Your task to perform on an android device: turn on the 24-hour format for clock Image 0: 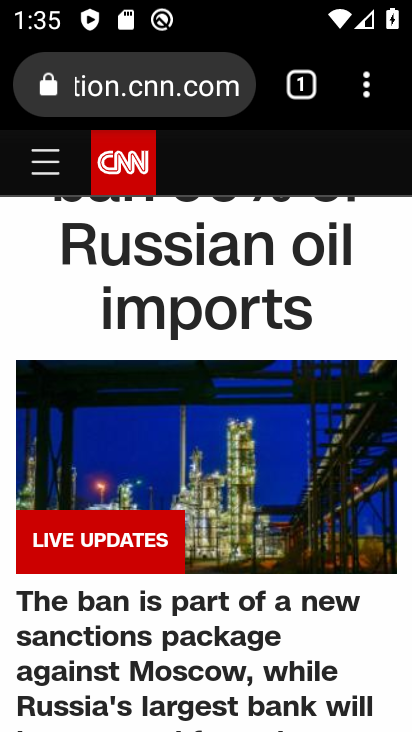
Step 0: press home button
Your task to perform on an android device: turn on the 24-hour format for clock Image 1: 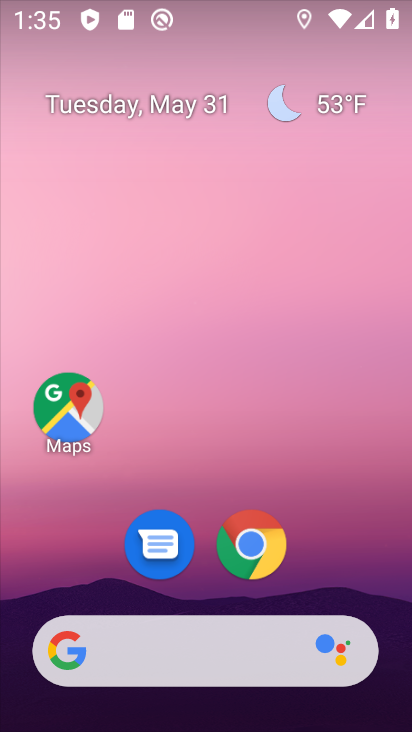
Step 1: drag from (366, 585) to (348, 77)
Your task to perform on an android device: turn on the 24-hour format for clock Image 2: 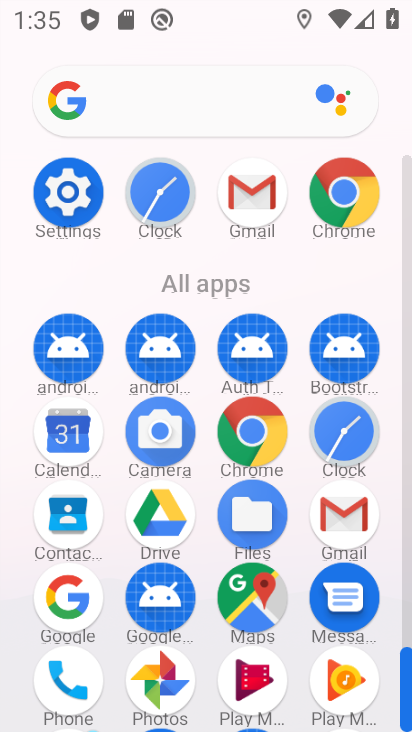
Step 2: click (336, 433)
Your task to perform on an android device: turn on the 24-hour format for clock Image 3: 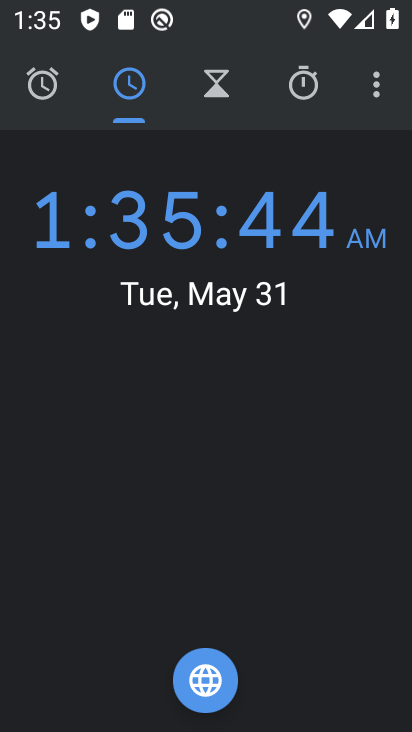
Step 3: click (377, 100)
Your task to perform on an android device: turn on the 24-hour format for clock Image 4: 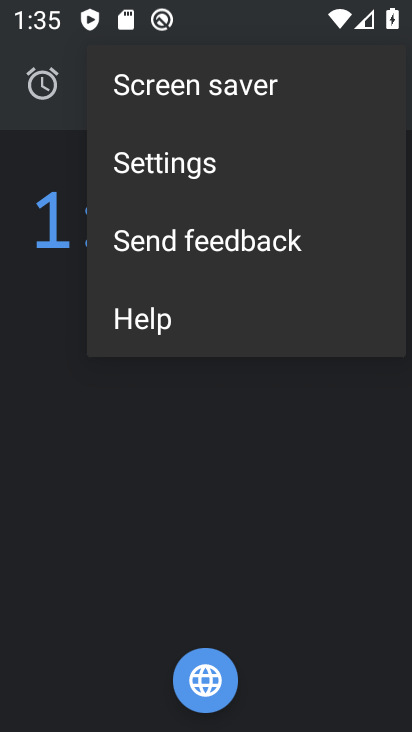
Step 4: click (165, 157)
Your task to perform on an android device: turn on the 24-hour format for clock Image 5: 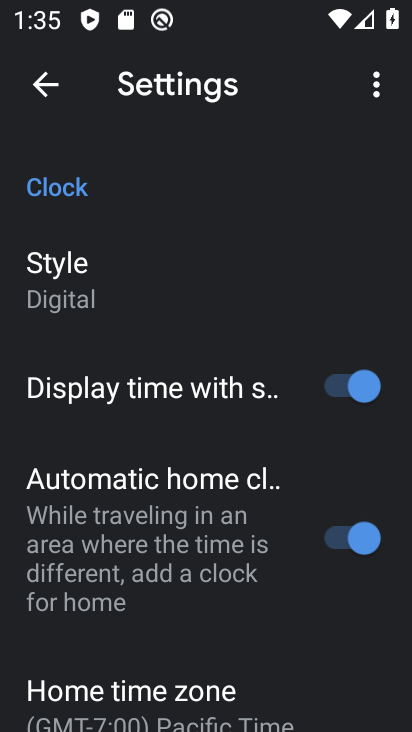
Step 5: drag from (206, 540) to (190, 249)
Your task to perform on an android device: turn on the 24-hour format for clock Image 6: 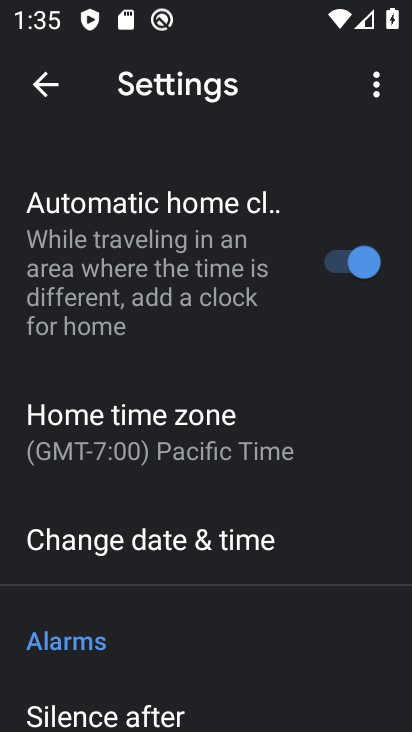
Step 6: click (195, 545)
Your task to perform on an android device: turn on the 24-hour format for clock Image 7: 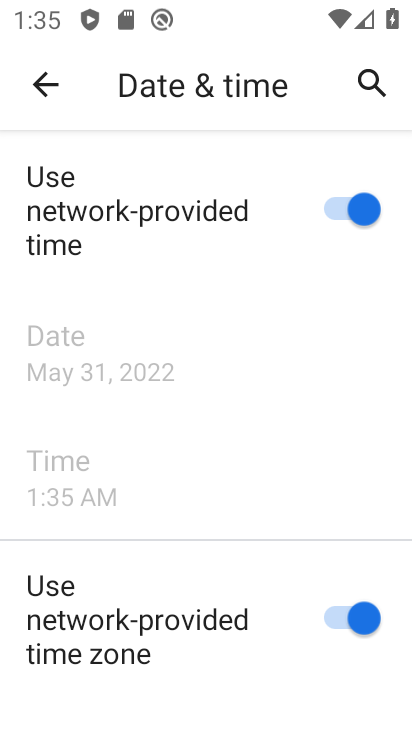
Step 7: drag from (214, 570) to (203, 279)
Your task to perform on an android device: turn on the 24-hour format for clock Image 8: 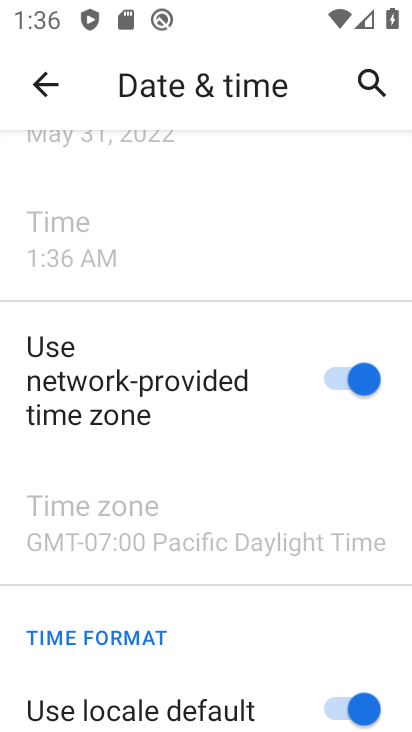
Step 8: drag from (213, 634) to (204, 337)
Your task to perform on an android device: turn on the 24-hour format for clock Image 9: 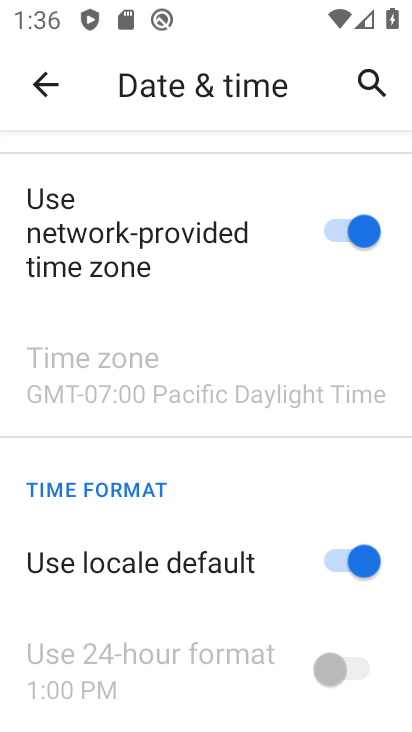
Step 9: click (368, 565)
Your task to perform on an android device: turn on the 24-hour format for clock Image 10: 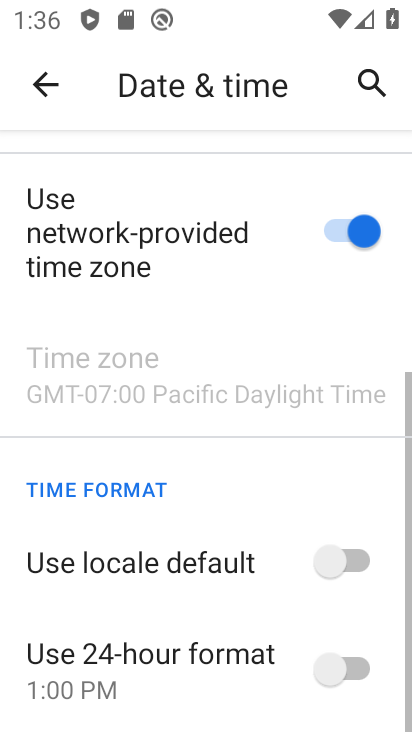
Step 10: click (347, 677)
Your task to perform on an android device: turn on the 24-hour format for clock Image 11: 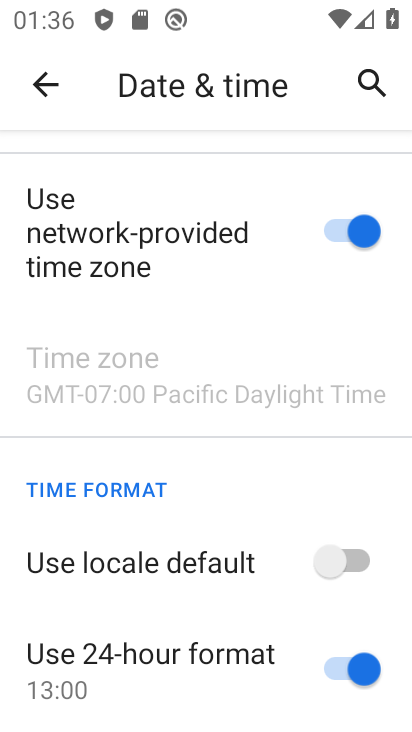
Step 11: task complete